Your task to perform on an android device: Go to calendar. Show me events next week Image 0: 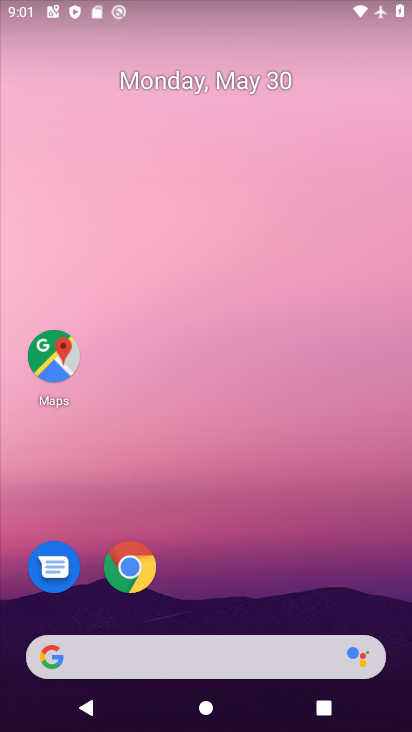
Step 0: drag from (262, 606) to (254, 19)
Your task to perform on an android device: Go to calendar. Show me events next week Image 1: 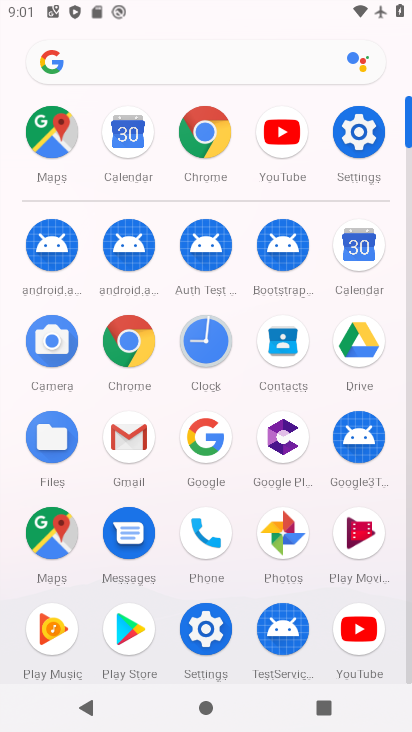
Step 1: click (359, 260)
Your task to perform on an android device: Go to calendar. Show me events next week Image 2: 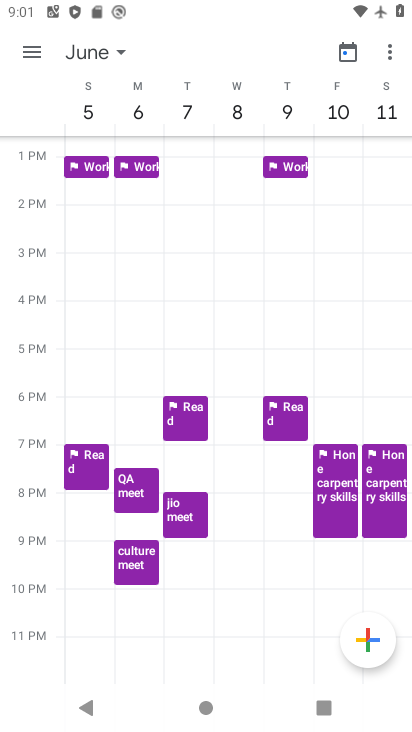
Step 2: task complete